Your task to perform on an android device: set an alarm Image 0: 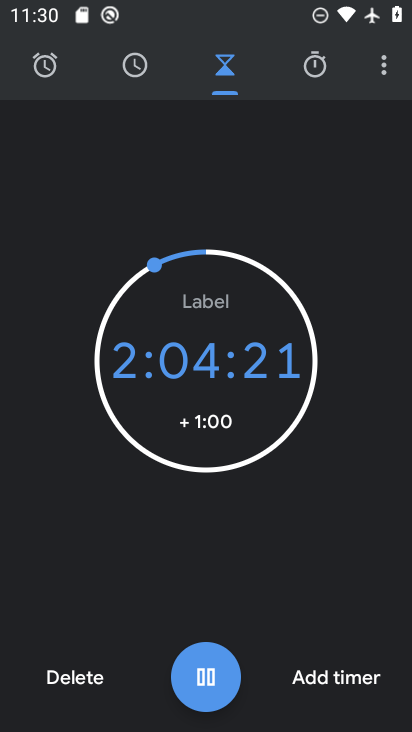
Step 0: click (43, 64)
Your task to perform on an android device: set an alarm Image 1: 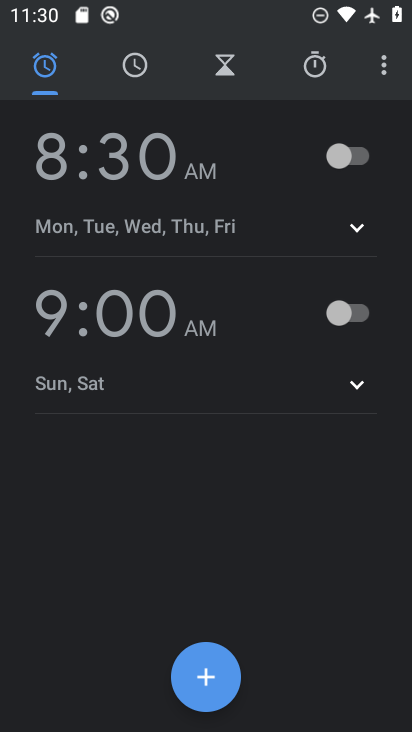
Step 1: click (206, 668)
Your task to perform on an android device: set an alarm Image 2: 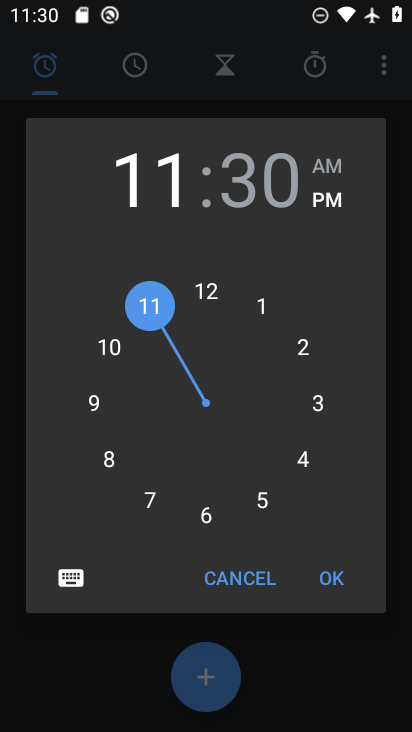
Step 2: click (210, 287)
Your task to perform on an android device: set an alarm Image 3: 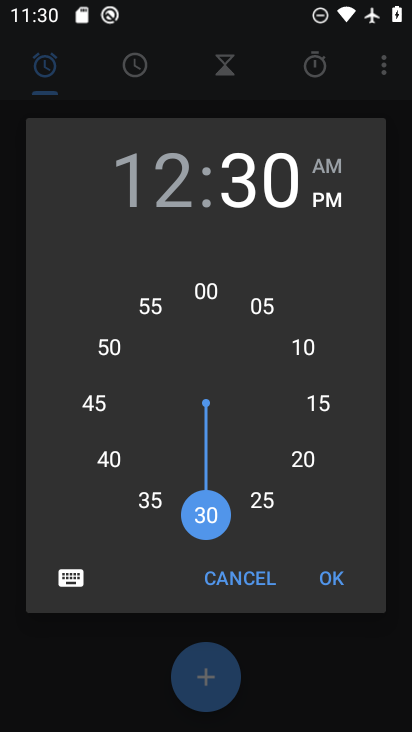
Step 3: click (287, 450)
Your task to perform on an android device: set an alarm Image 4: 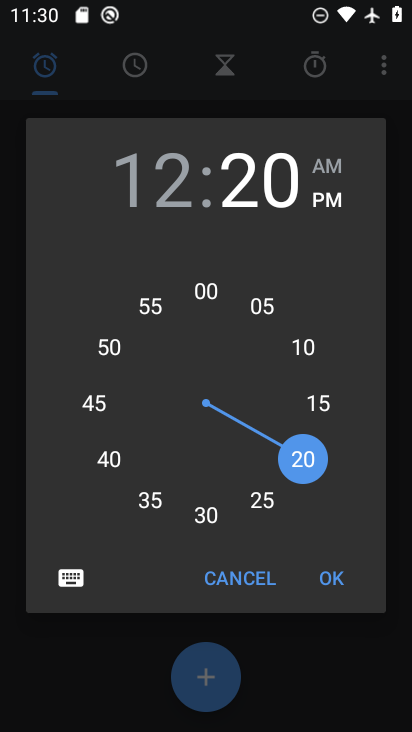
Step 4: click (329, 561)
Your task to perform on an android device: set an alarm Image 5: 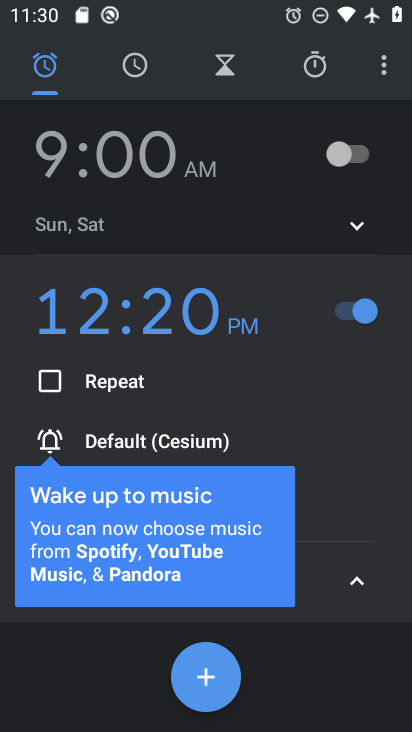
Step 5: click (213, 276)
Your task to perform on an android device: set an alarm Image 6: 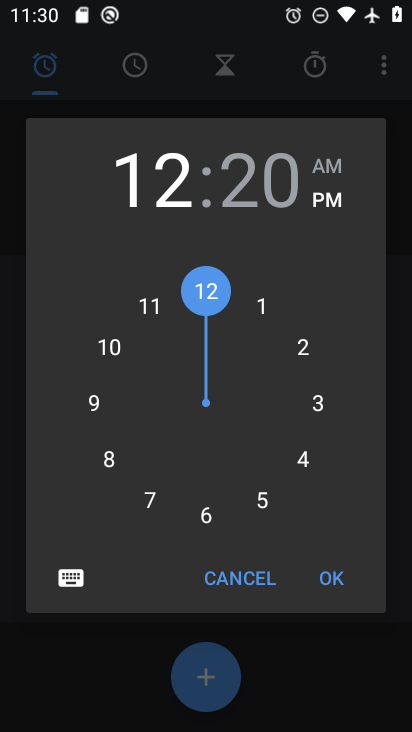
Step 6: click (309, 400)
Your task to perform on an android device: set an alarm Image 7: 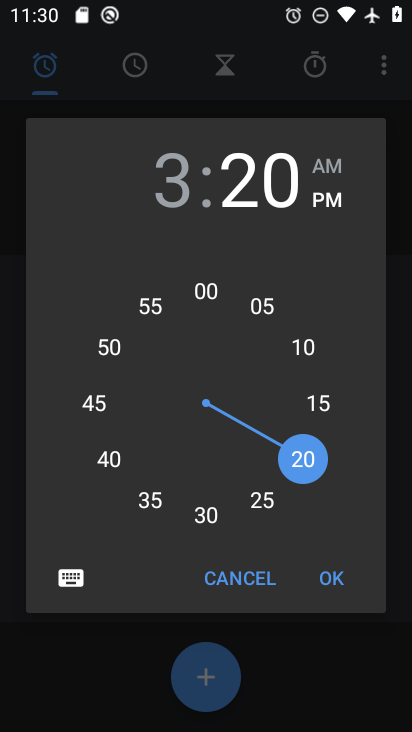
Step 7: click (337, 584)
Your task to perform on an android device: set an alarm Image 8: 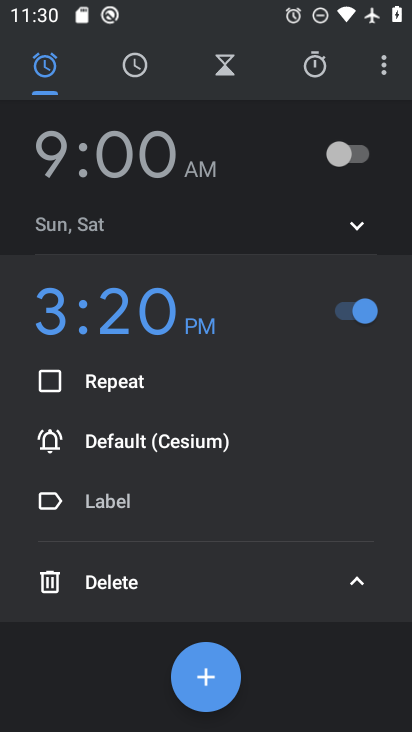
Step 8: task complete